Your task to perform on an android device: What is the recent news? Image 0: 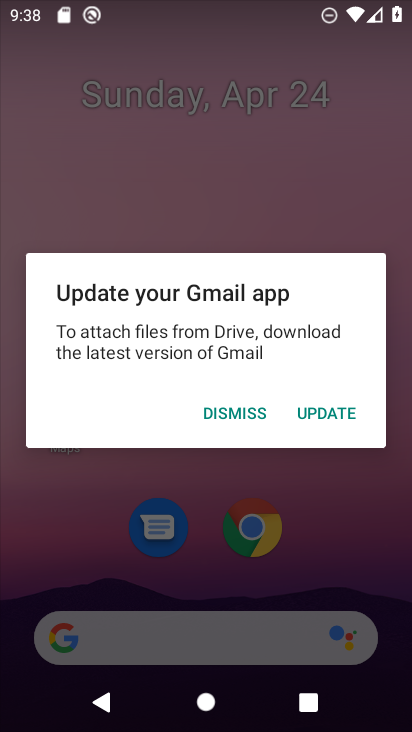
Step 0: press home button
Your task to perform on an android device: What is the recent news? Image 1: 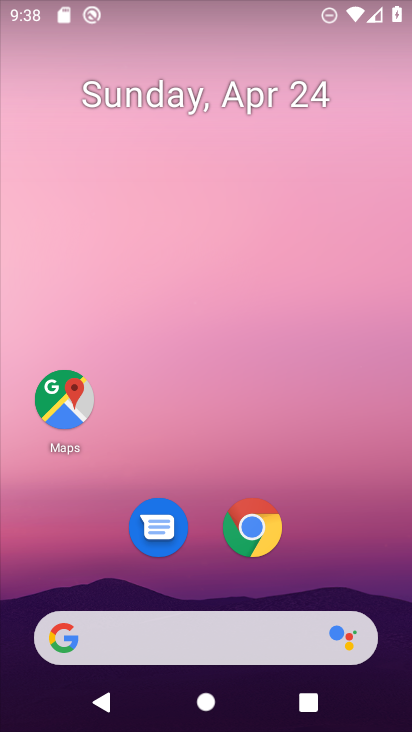
Step 1: drag from (391, 621) to (259, 49)
Your task to perform on an android device: What is the recent news? Image 2: 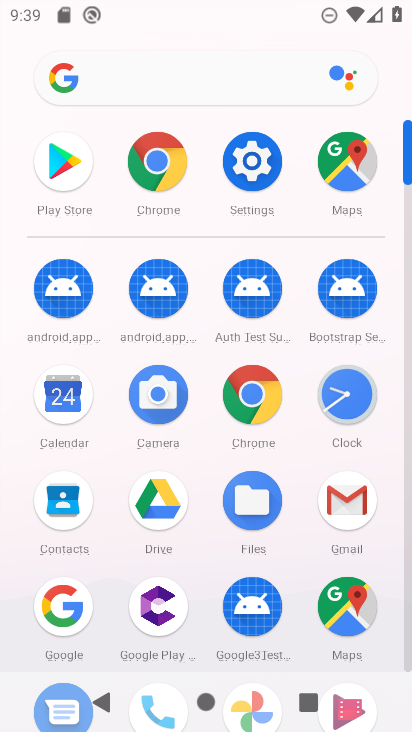
Step 2: click (267, 394)
Your task to perform on an android device: What is the recent news? Image 3: 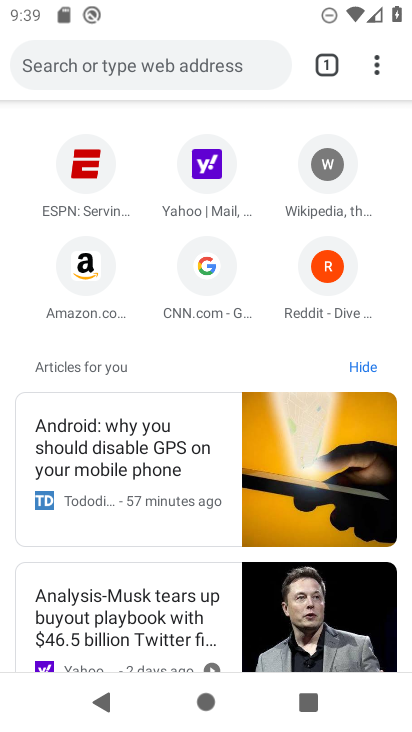
Step 3: click (131, 486)
Your task to perform on an android device: What is the recent news? Image 4: 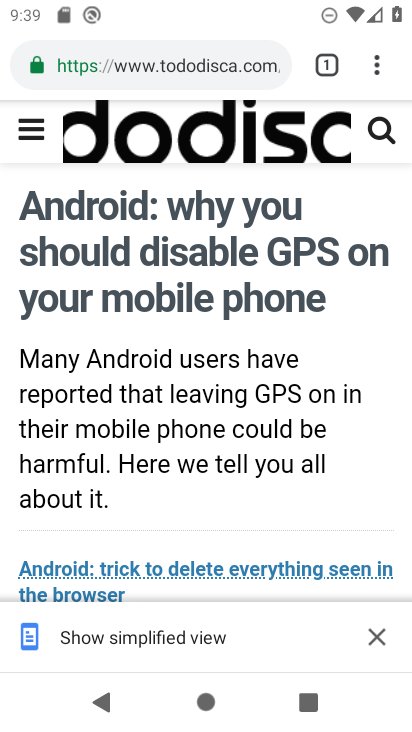
Step 4: task complete